Your task to perform on an android device: turn on showing notifications on the lock screen Image 0: 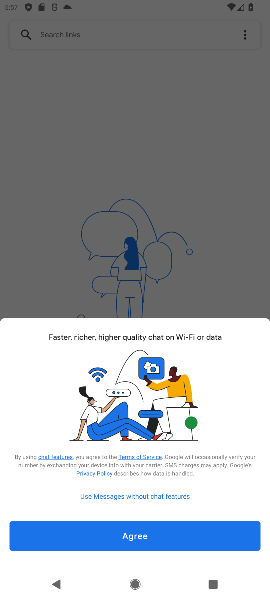
Step 0: press home button
Your task to perform on an android device: turn on showing notifications on the lock screen Image 1: 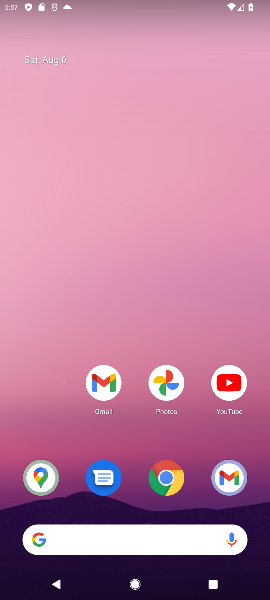
Step 1: drag from (125, 507) to (38, 78)
Your task to perform on an android device: turn on showing notifications on the lock screen Image 2: 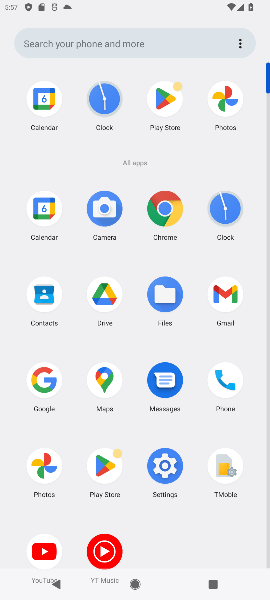
Step 2: click (160, 470)
Your task to perform on an android device: turn on showing notifications on the lock screen Image 3: 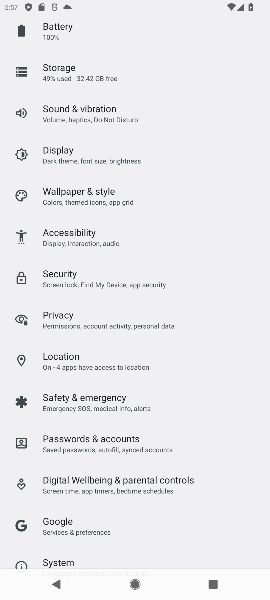
Step 3: drag from (207, 137) to (206, 230)
Your task to perform on an android device: turn on showing notifications on the lock screen Image 4: 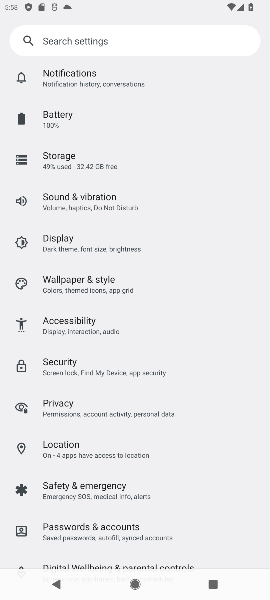
Step 4: click (80, 72)
Your task to perform on an android device: turn on showing notifications on the lock screen Image 5: 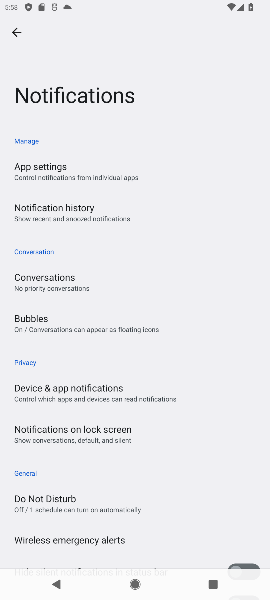
Step 5: click (79, 424)
Your task to perform on an android device: turn on showing notifications on the lock screen Image 6: 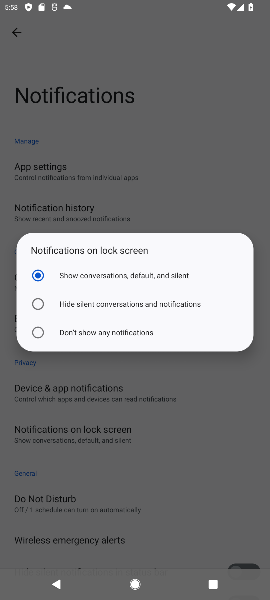
Step 6: task complete